Your task to perform on an android device: Open eBay Image 0: 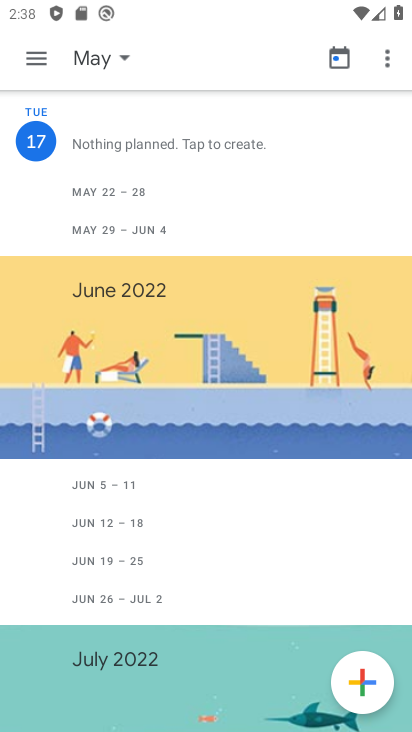
Step 0: press home button
Your task to perform on an android device: Open eBay Image 1: 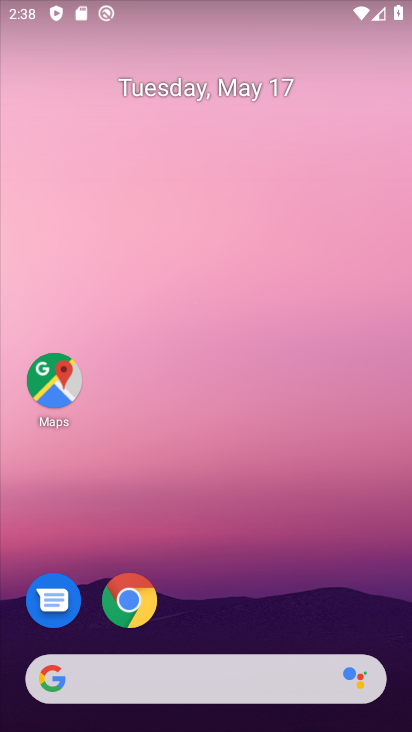
Step 1: click (132, 611)
Your task to perform on an android device: Open eBay Image 2: 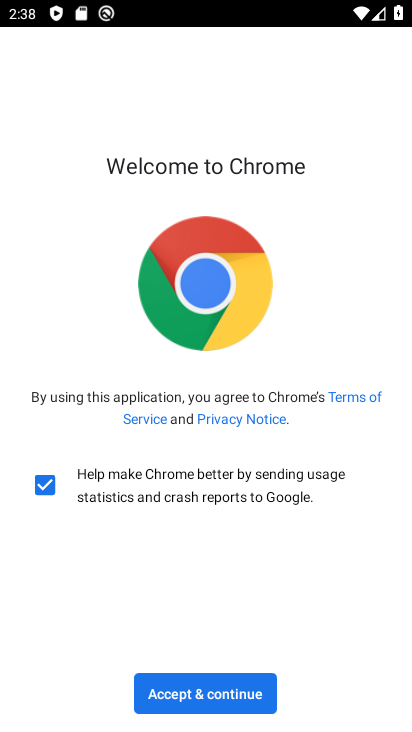
Step 2: click (218, 704)
Your task to perform on an android device: Open eBay Image 3: 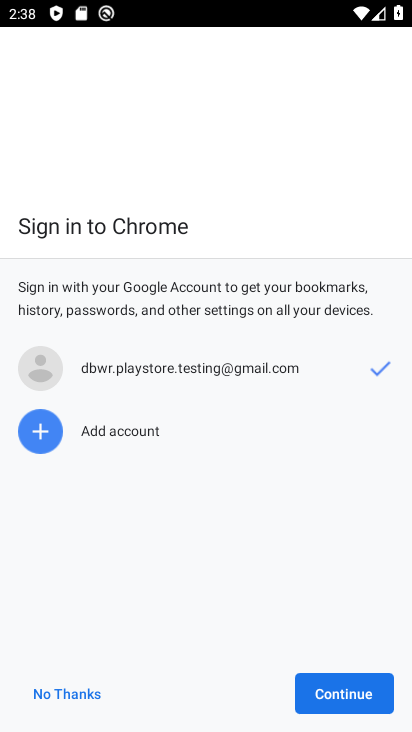
Step 3: click (373, 702)
Your task to perform on an android device: Open eBay Image 4: 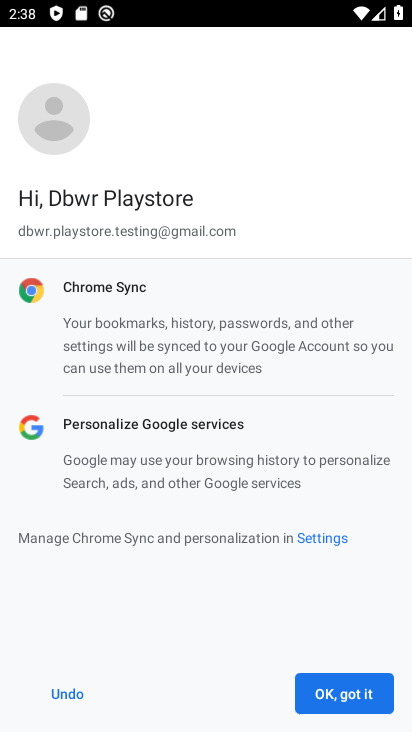
Step 4: click (373, 702)
Your task to perform on an android device: Open eBay Image 5: 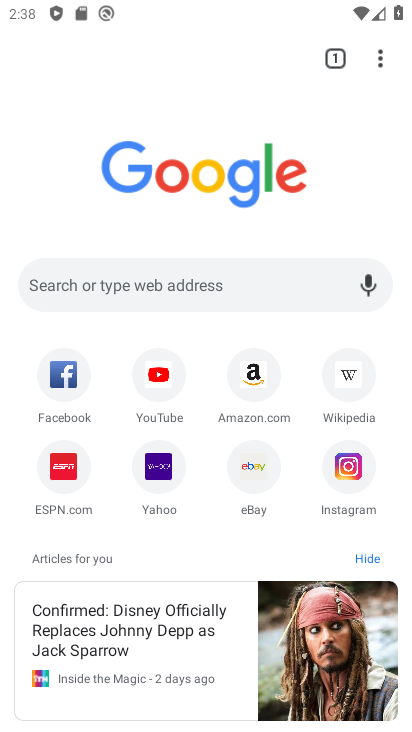
Step 5: click (174, 285)
Your task to perform on an android device: Open eBay Image 6: 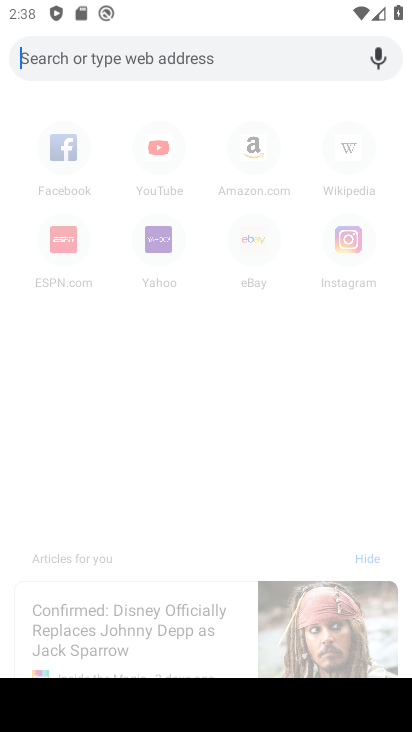
Step 6: type "ebay"
Your task to perform on an android device: Open eBay Image 7: 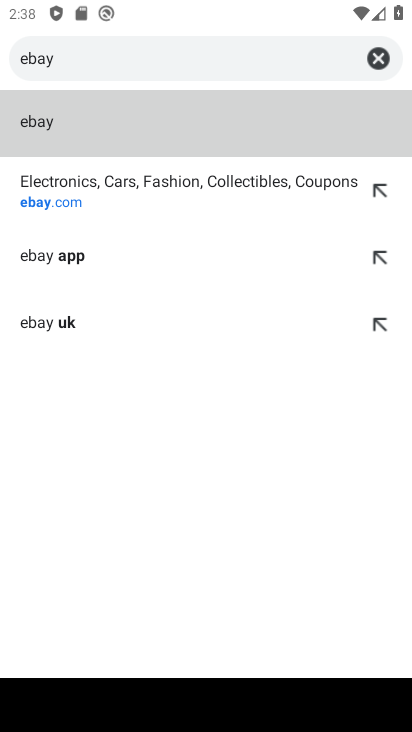
Step 7: click (89, 197)
Your task to perform on an android device: Open eBay Image 8: 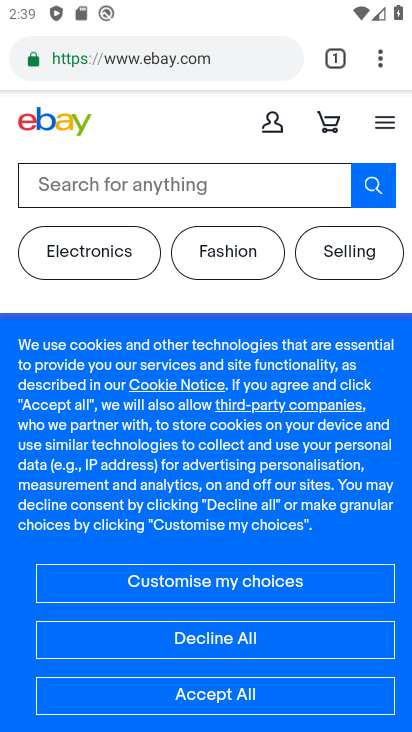
Step 8: task complete